Your task to perform on an android device: check google app version Image 0: 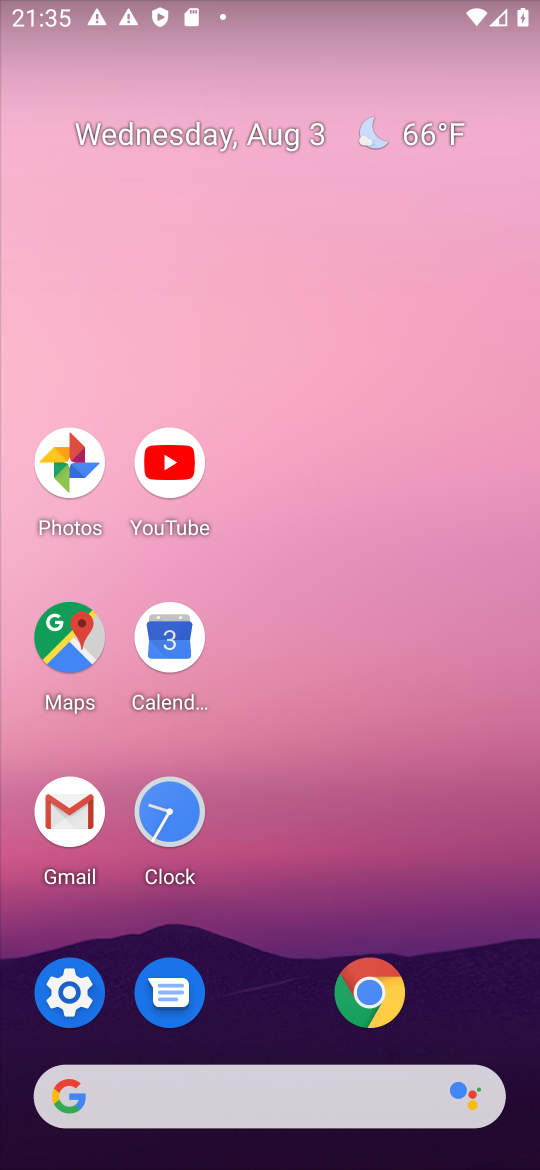
Step 0: click (66, 1091)
Your task to perform on an android device: check google app version Image 1: 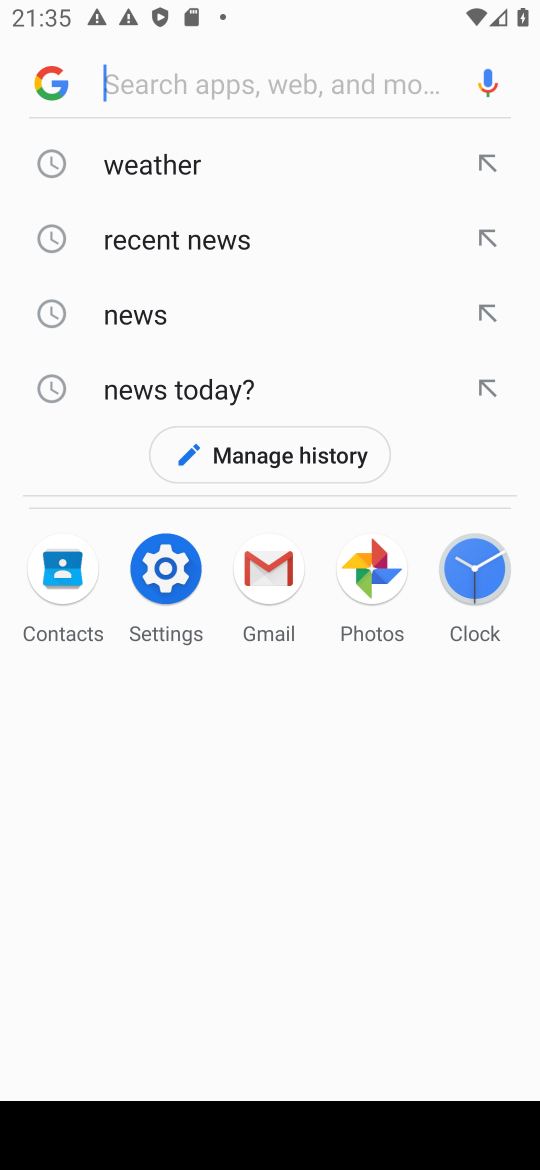
Step 1: click (37, 83)
Your task to perform on an android device: check google app version Image 2: 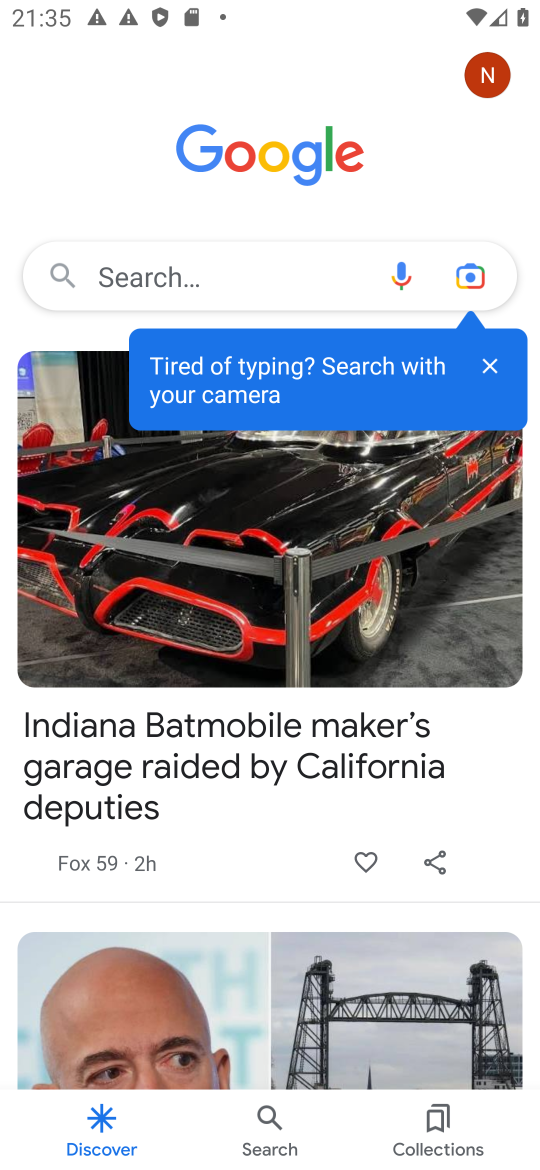
Step 2: click (491, 77)
Your task to perform on an android device: check google app version Image 3: 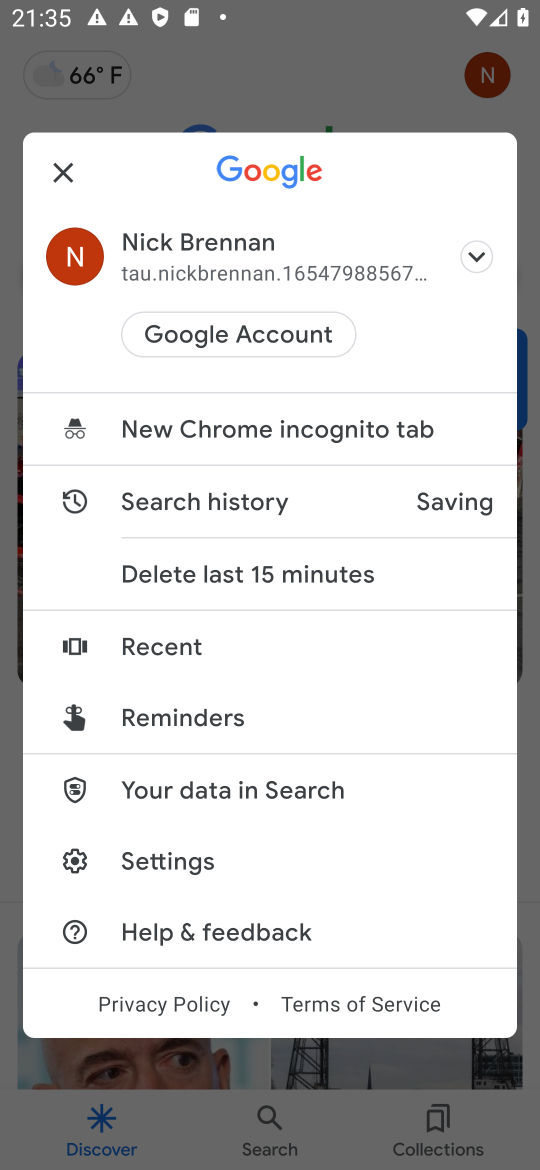
Step 3: click (167, 851)
Your task to perform on an android device: check google app version Image 4: 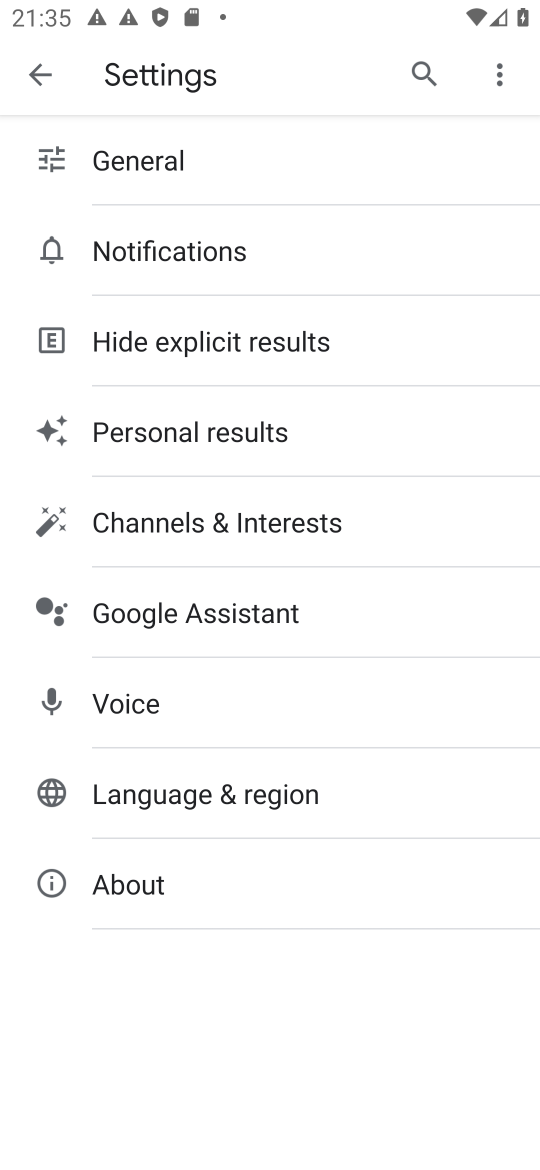
Step 4: click (136, 888)
Your task to perform on an android device: check google app version Image 5: 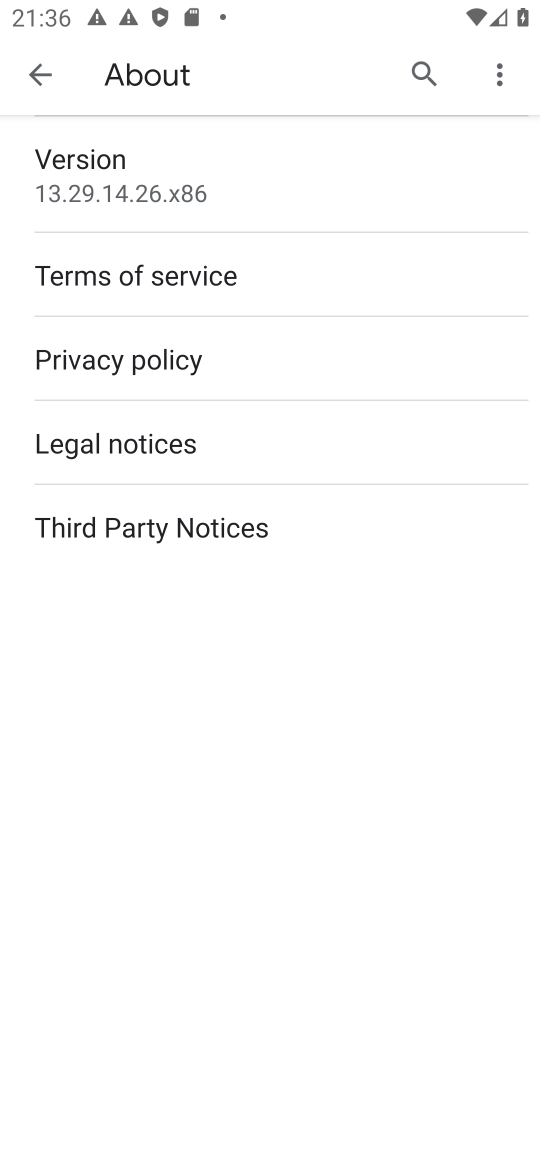
Step 5: task complete